Your task to perform on an android device: Go to notification settings Image 0: 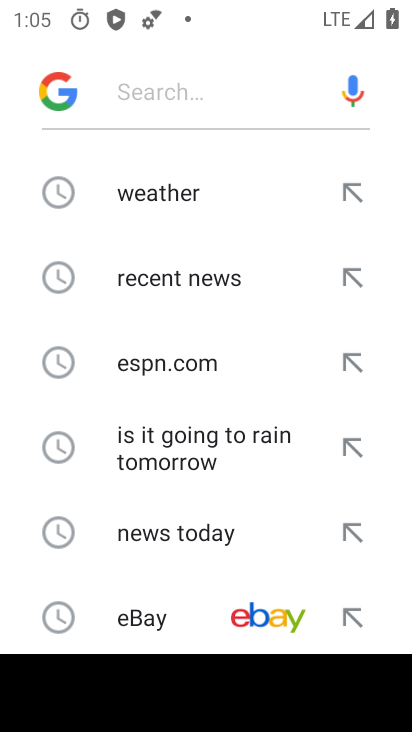
Step 0: press home button
Your task to perform on an android device: Go to notification settings Image 1: 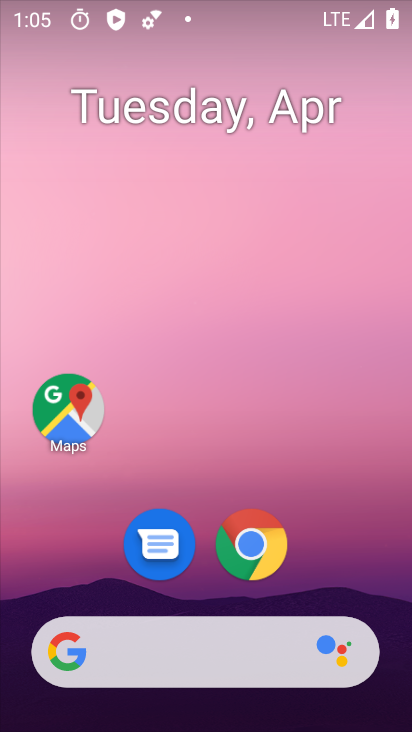
Step 1: drag from (383, 561) to (383, 52)
Your task to perform on an android device: Go to notification settings Image 2: 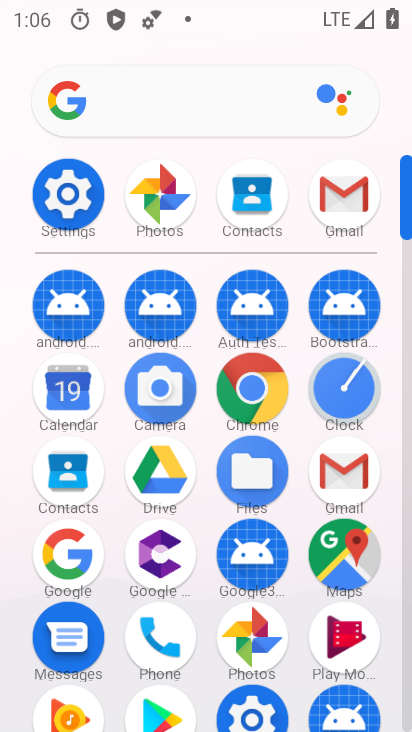
Step 2: click (69, 199)
Your task to perform on an android device: Go to notification settings Image 3: 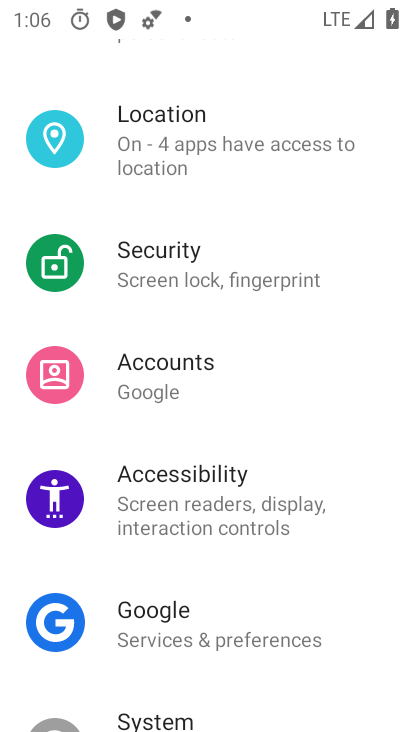
Step 3: drag from (386, 273) to (405, 457)
Your task to perform on an android device: Go to notification settings Image 4: 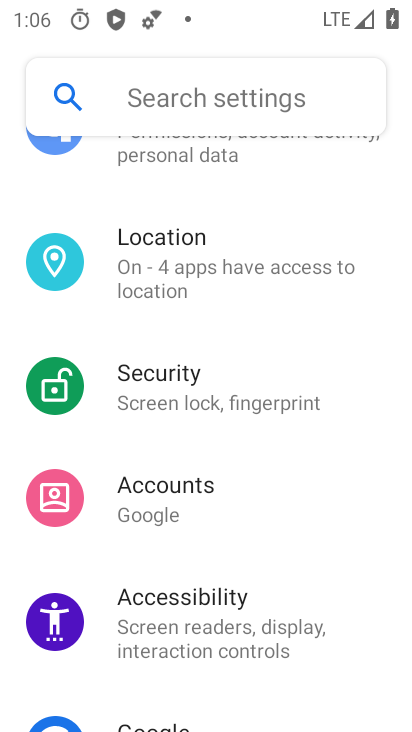
Step 4: drag from (401, 354) to (393, 527)
Your task to perform on an android device: Go to notification settings Image 5: 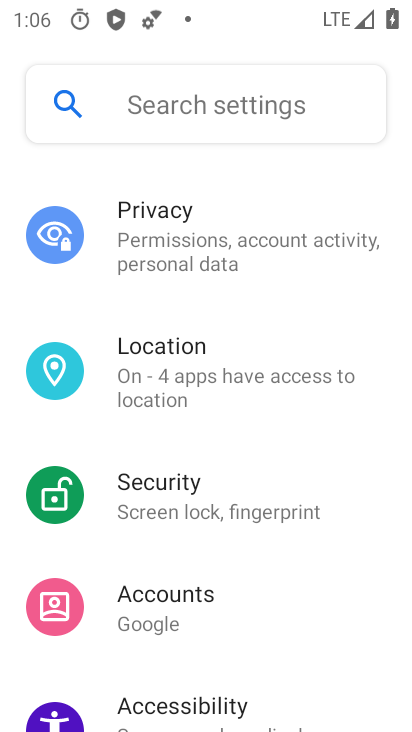
Step 5: drag from (392, 344) to (380, 574)
Your task to perform on an android device: Go to notification settings Image 6: 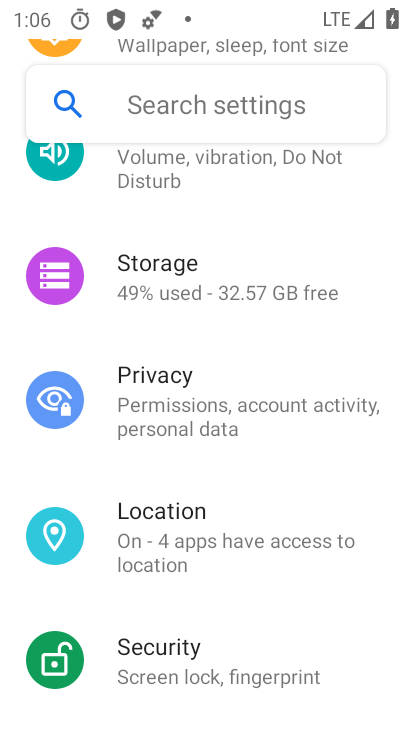
Step 6: drag from (384, 309) to (387, 548)
Your task to perform on an android device: Go to notification settings Image 7: 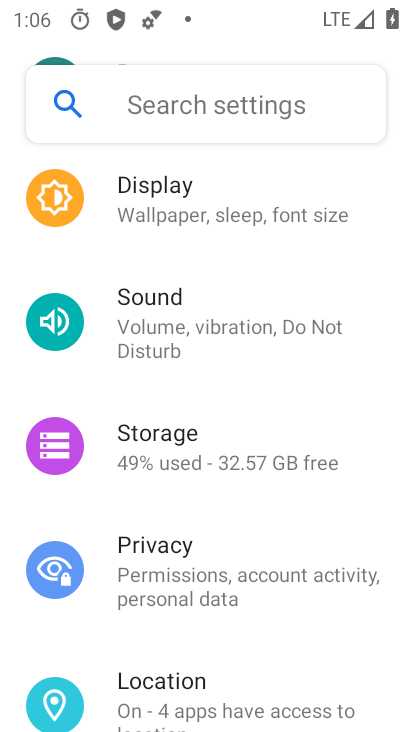
Step 7: drag from (396, 328) to (370, 595)
Your task to perform on an android device: Go to notification settings Image 8: 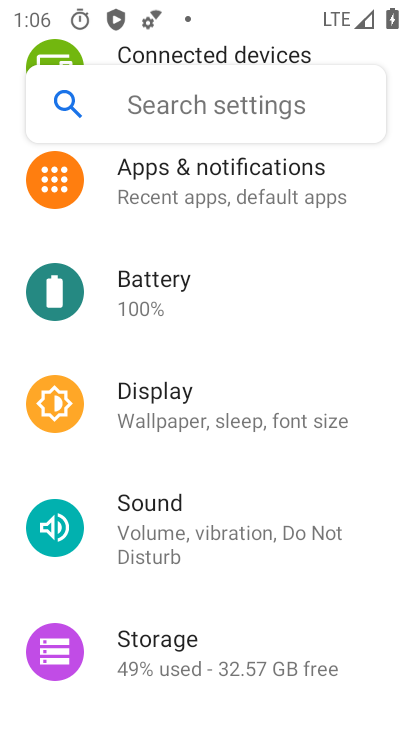
Step 8: click (219, 190)
Your task to perform on an android device: Go to notification settings Image 9: 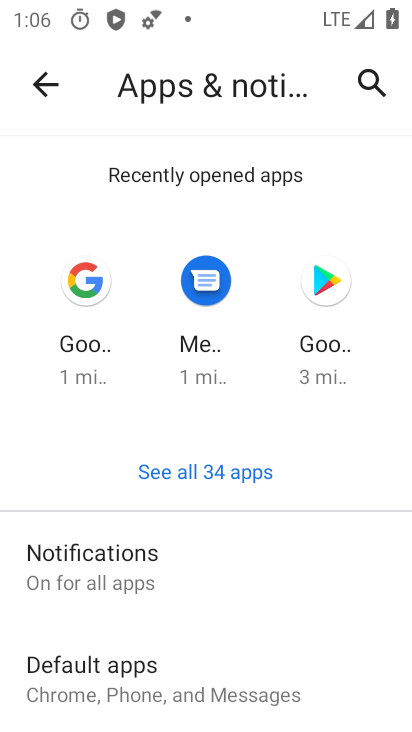
Step 9: task complete